Your task to perform on an android device: When is my next appointment? Image 0: 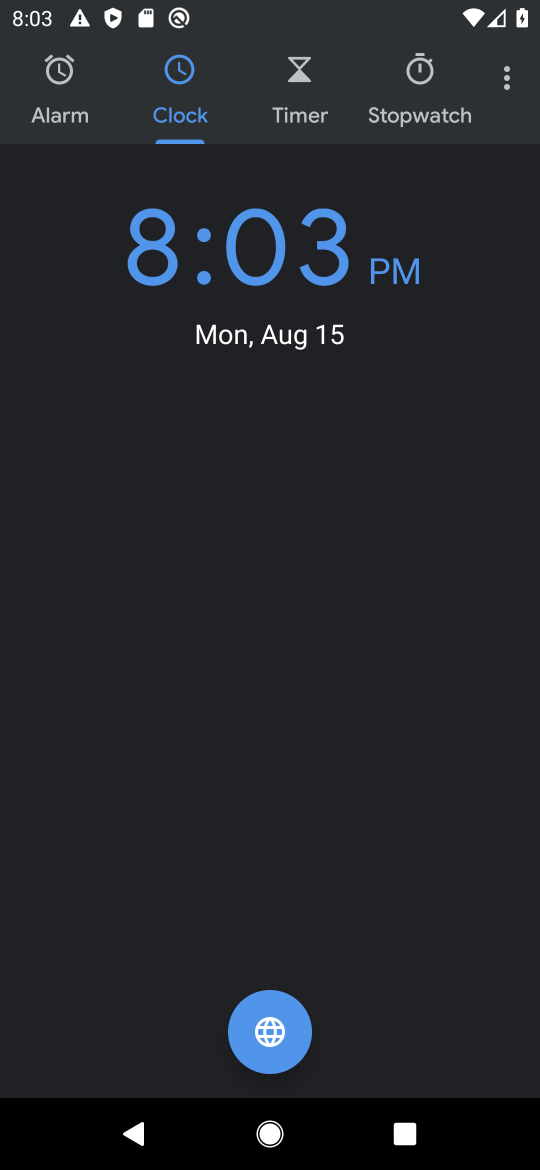
Step 0: press home button
Your task to perform on an android device: When is my next appointment? Image 1: 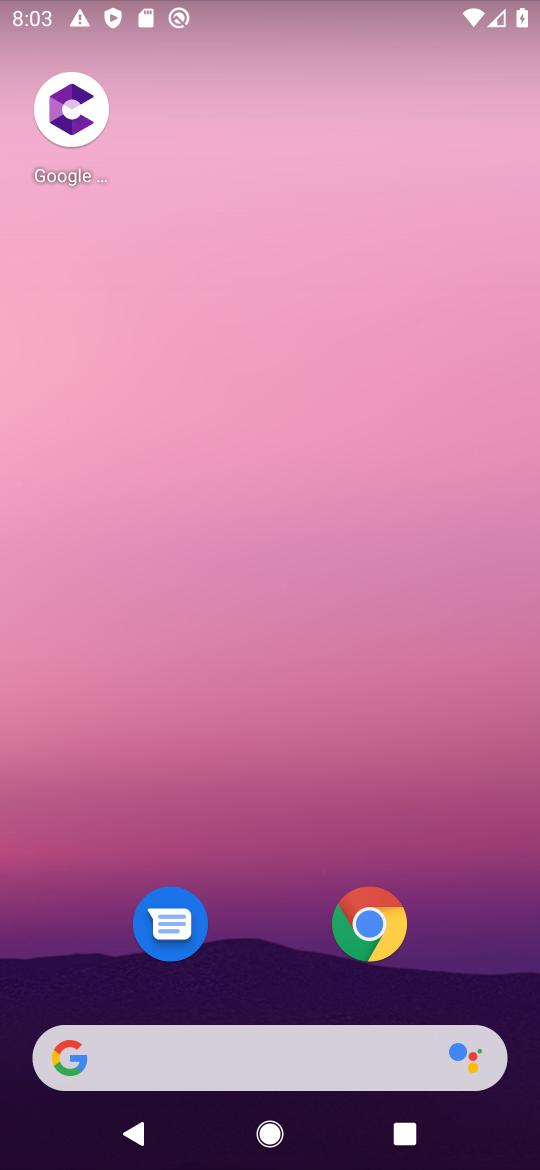
Step 1: drag from (514, 979) to (474, 217)
Your task to perform on an android device: When is my next appointment? Image 2: 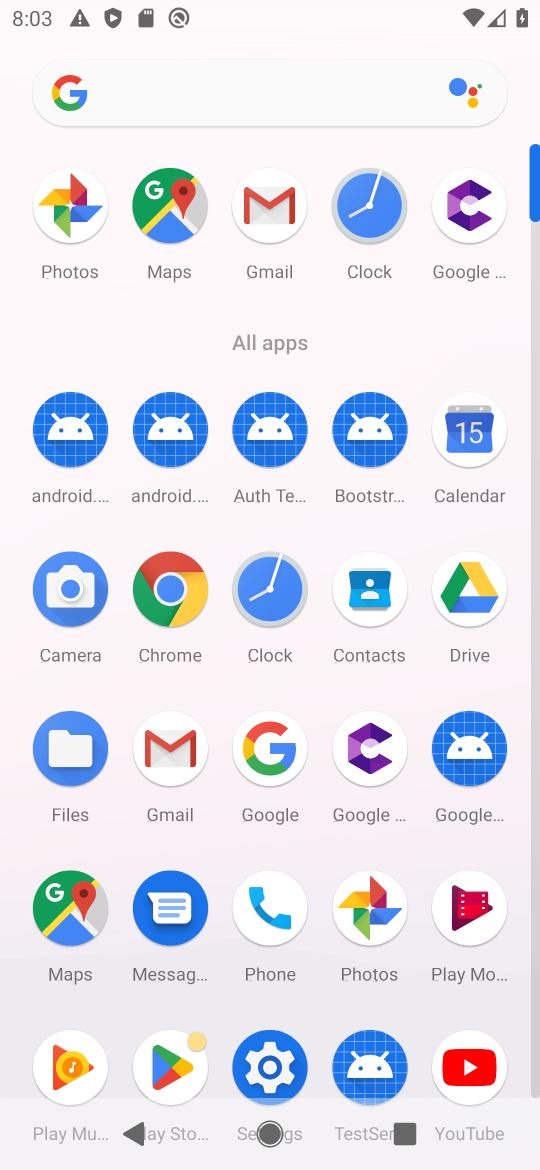
Step 2: click (467, 431)
Your task to perform on an android device: When is my next appointment? Image 3: 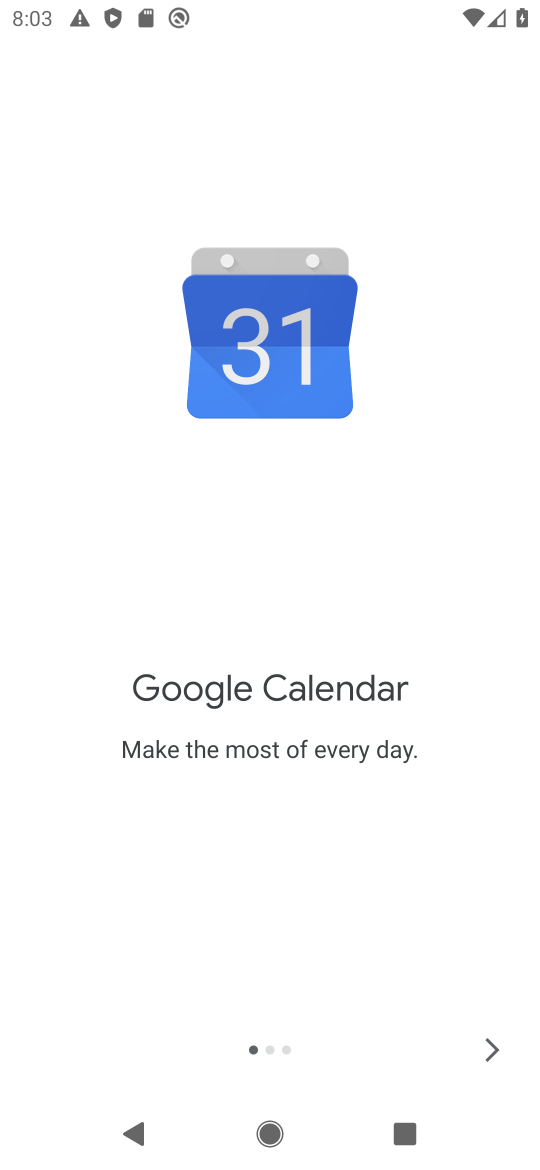
Step 3: click (486, 1047)
Your task to perform on an android device: When is my next appointment? Image 4: 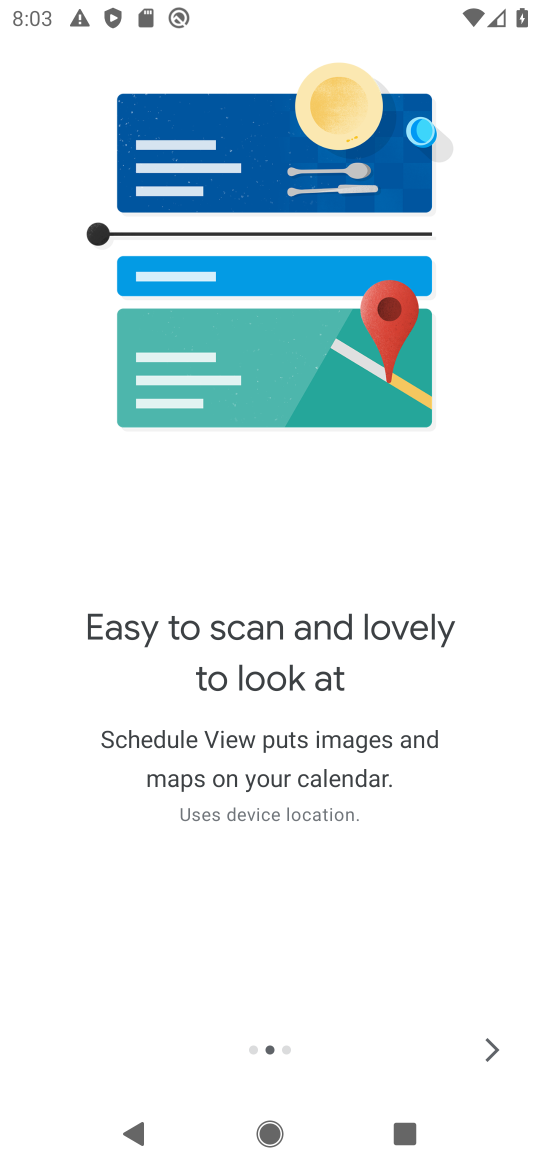
Step 4: click (486, 1047)
Your task to perform on an android device: When is my next appointment? Image 5: 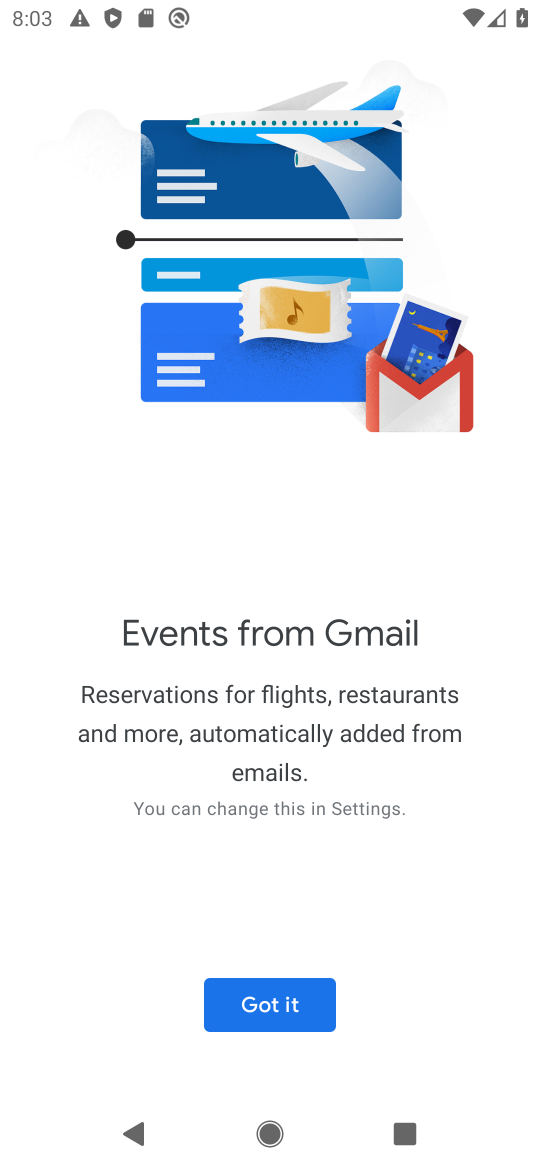
Step 5: click (265, 1004)
Your task to perform on an android device: When is my next appointment? Image 6: 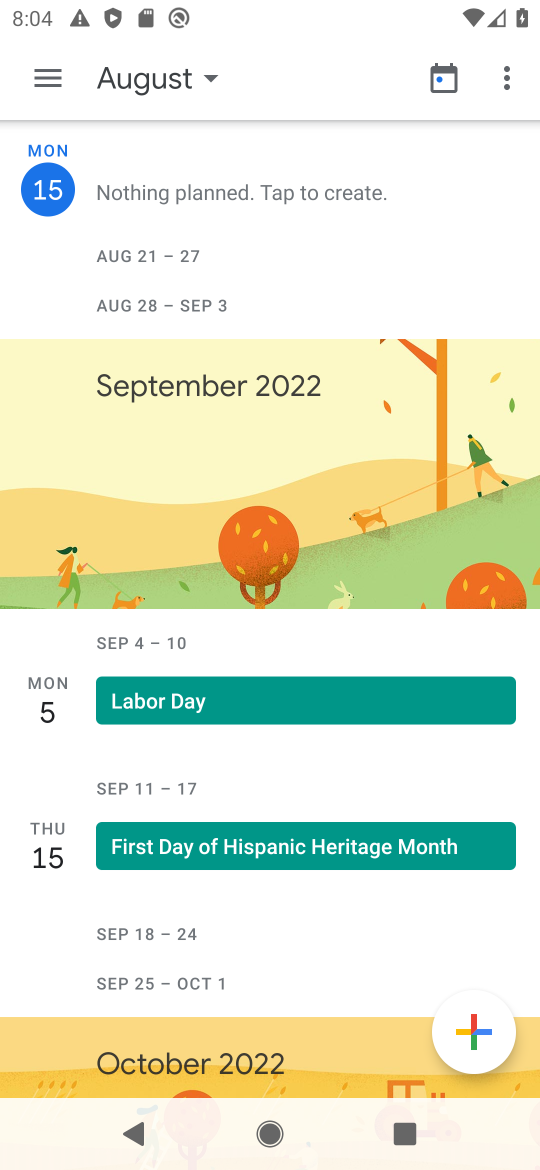
Step 6: click (47, 84)
Your task to perform on an android device: When is my next appointment? Image 7: 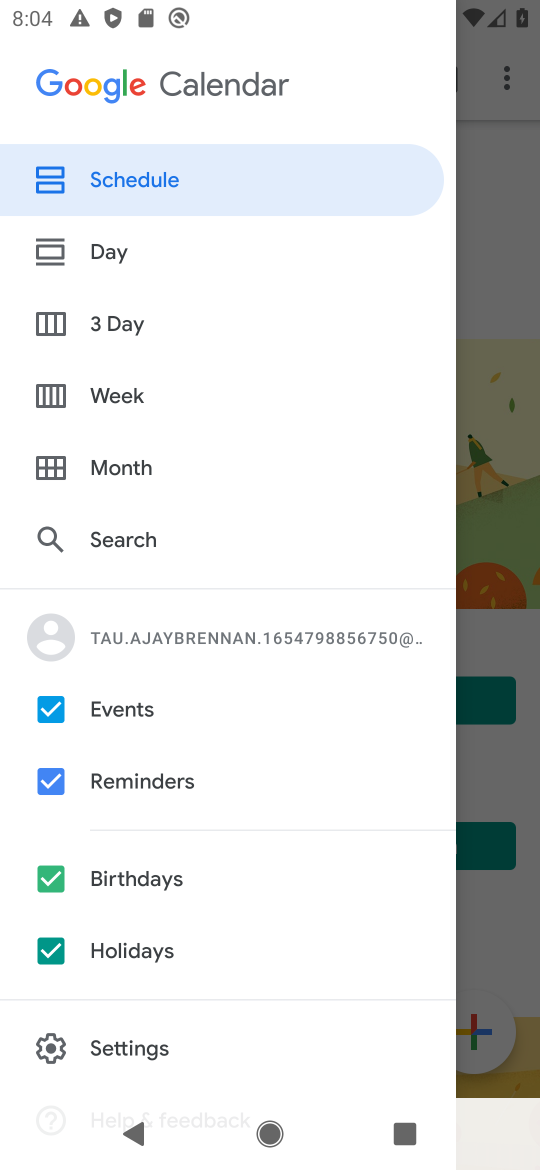
Step 7: click (142, 189)
Your task to perform on an android device: When is my next appointment? Image 8: 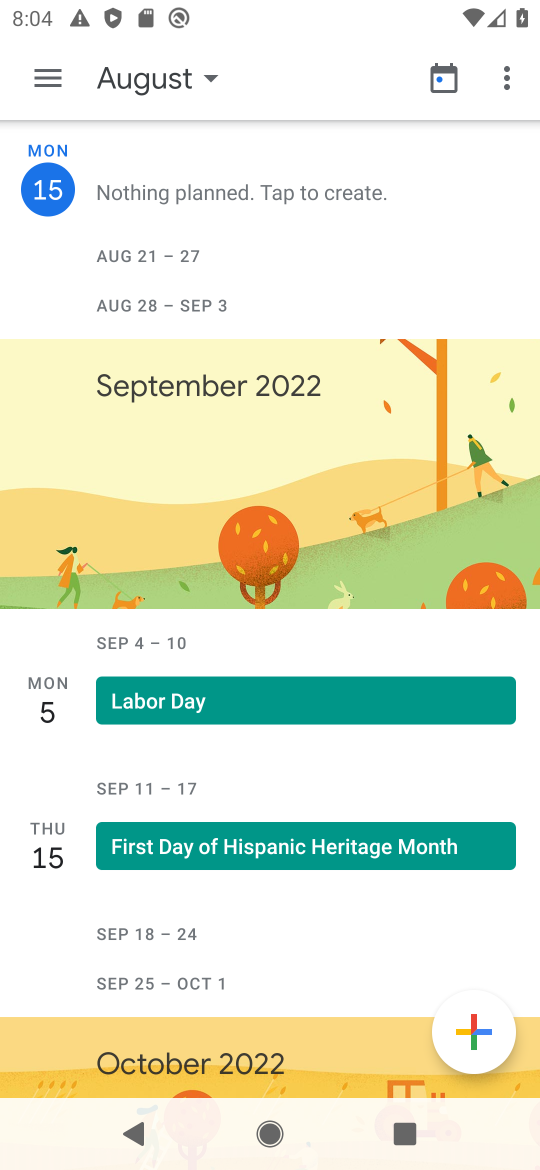
Step 8: task complete